Your task to perform on an android device: manage bookmarks in the chrome app Image 0: 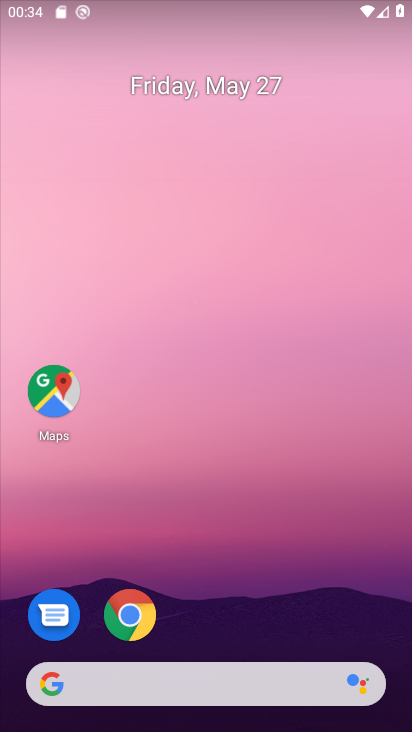
Step 0: drag from (367, 632) to (371, 203)
Your task to perform on an android device: manage bookmarks in the chrome app Image 1: 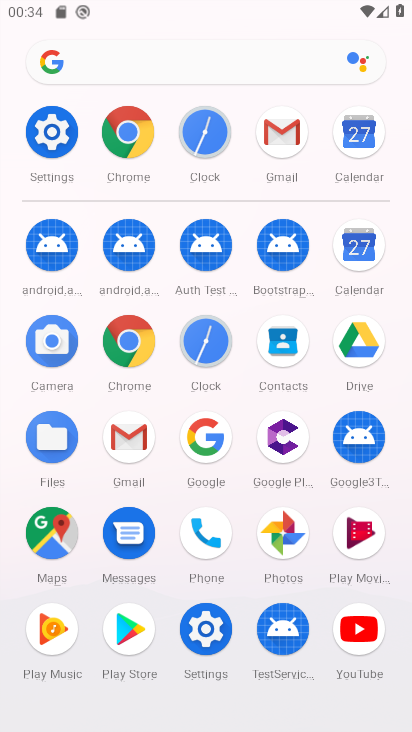
Step 1: click (144, 357)
Your task to perform on an android device: manage bookmarks in the chrome app Image 2: 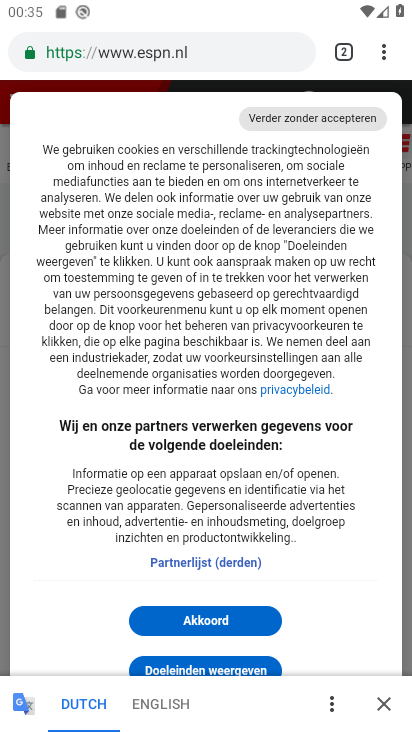
Step 2: click (385, 57)
Your task to perform on an android device: manage bookmarks in the chrome app Image 3: 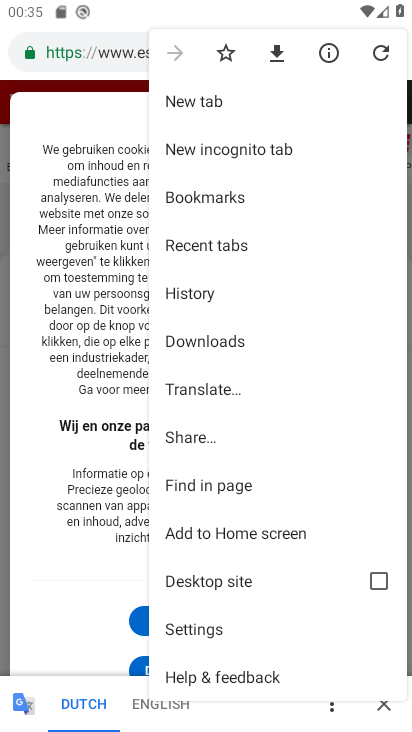
Step 3: click (239, 195)
Your task to perform on an android device: manage bookmarks in the chrome app Image 4: 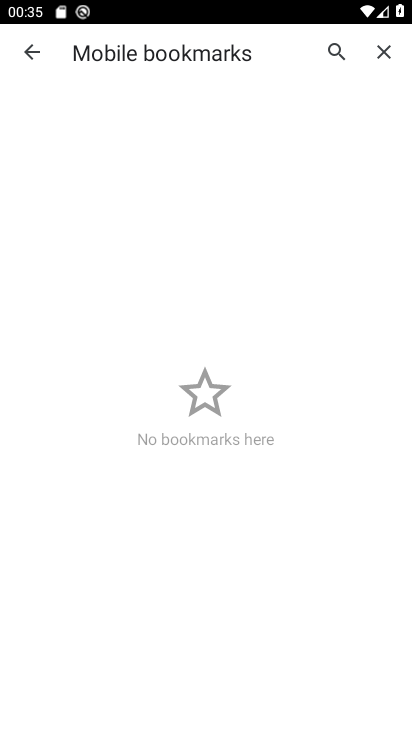
Step 4: task complete